Your task to perform on an android device: empty trash in the gmail app Image 0: 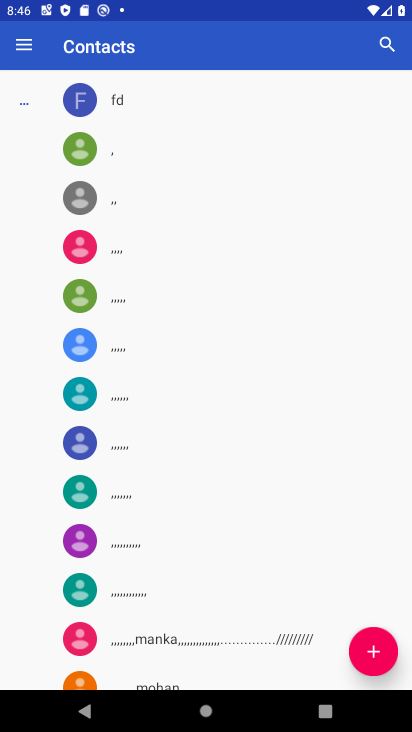
Step 0: press home button
Your task to perform on an android device: empty trash in the gmail app Image 1: 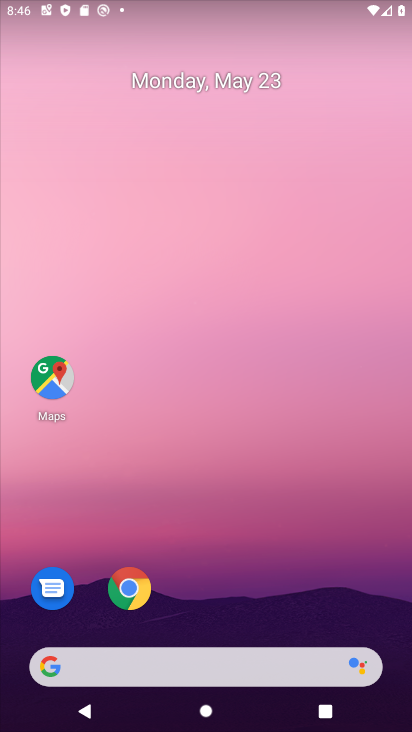
Step 1: drag from (403, 691) to (386, 217)
Your task to perform on an android device: empty trash in the gmail app Image 2: 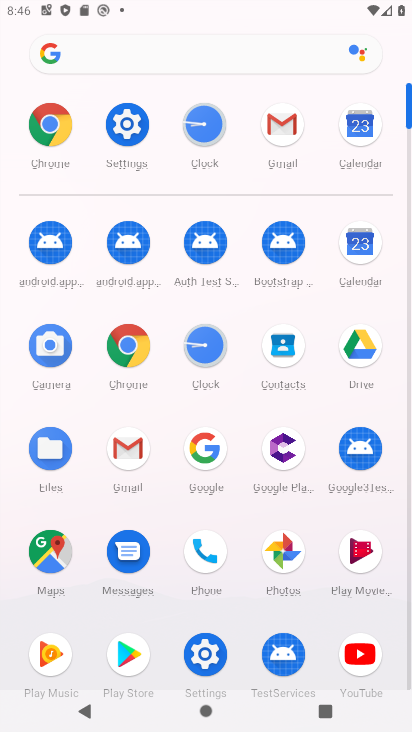
Step 2: click (126, 448)
Your task to perform on an android device: empty trash in the gmail app Image 3: 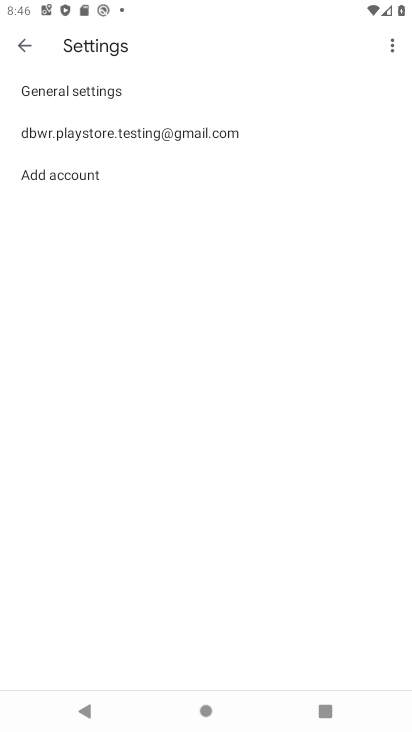
Step 3: click (21, 43)
Your task to perform on an android device: empty trash in the gmail app Image 4: 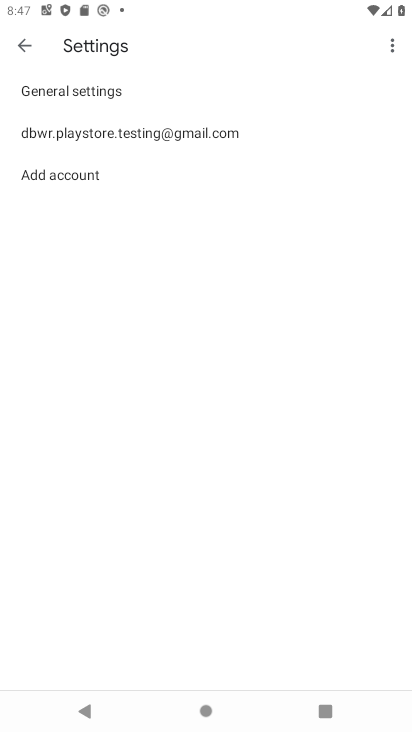
Step 4: click (21, 43)
Your task to perform on an android device: empty trash in the gmail app Image 5: 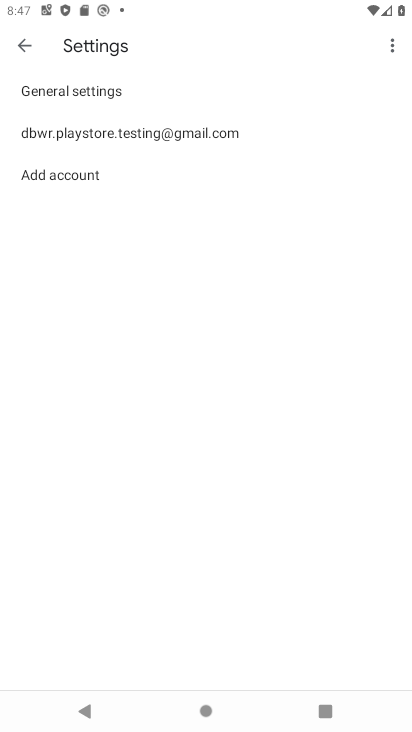
Step 5: click (21, 43)
Your task to perform on an android device: empty trash in the gmail app Image 6: 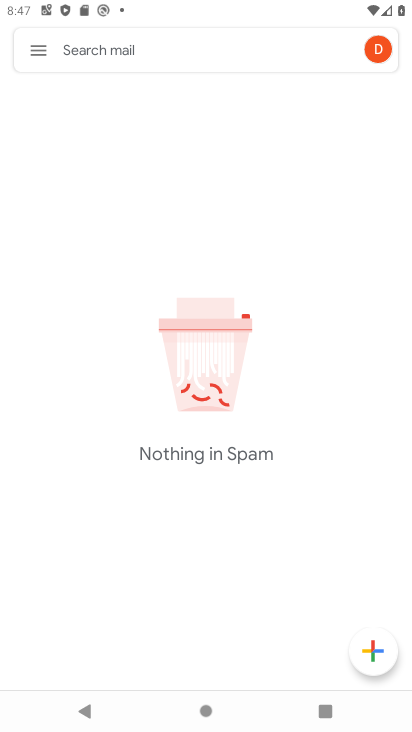
Step 6: click (38, 52)
Your task to perform on an android device: empty trash in the gmail app Image 7: 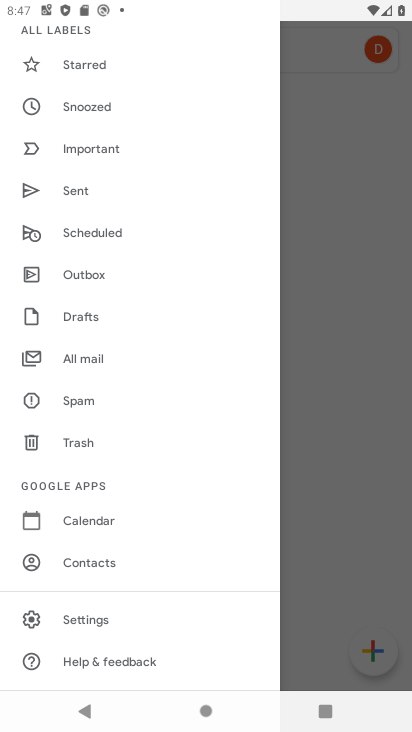
Step 7: click (75, 438)
Your task to perform on an android device: empty trash in the gmail app Image 8: 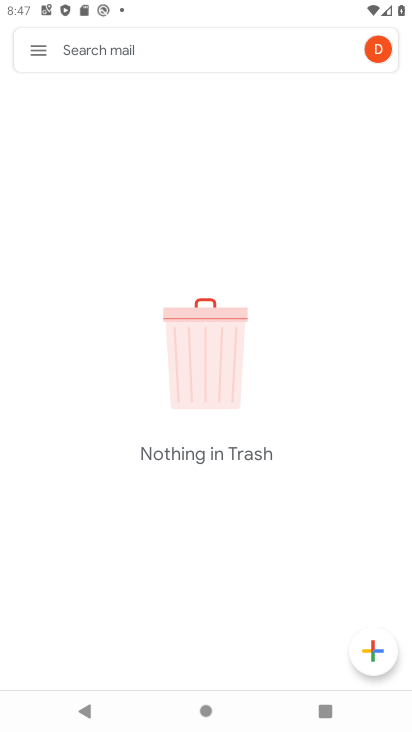
Step 8: task complete